Your task to perform on an android device: check storage Image 0: 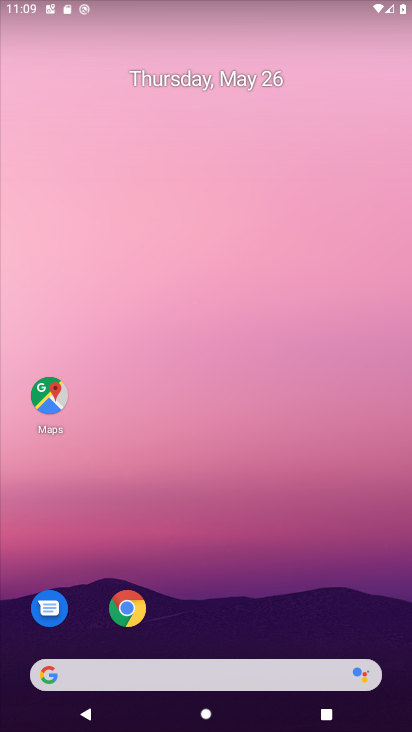
Step 0: drag from (395, 705) to (385, 301)
Your task to perform on an android device: check storage Image 1: 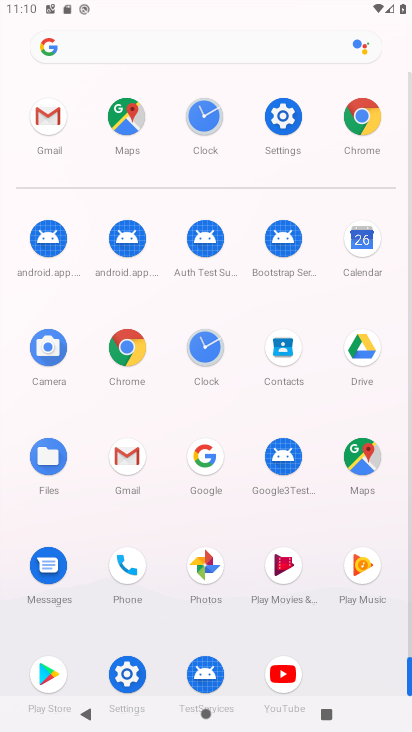
Step 1: click (125, 681)
Your task to perform on an android device: check storage Image 2: 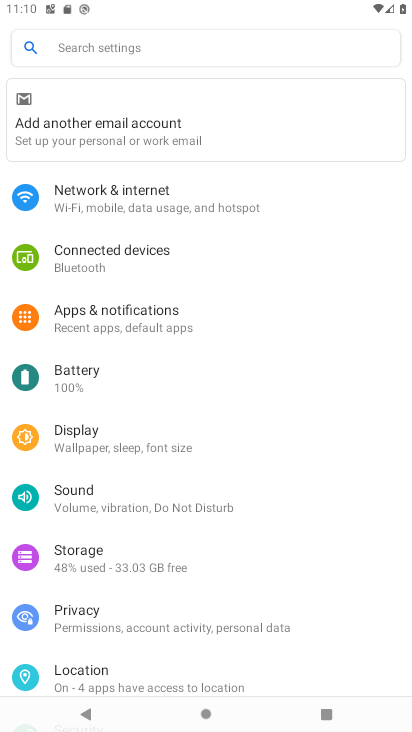
Step 2: click (96, 562)
Your task to perform on an android device: check storage Image 3: 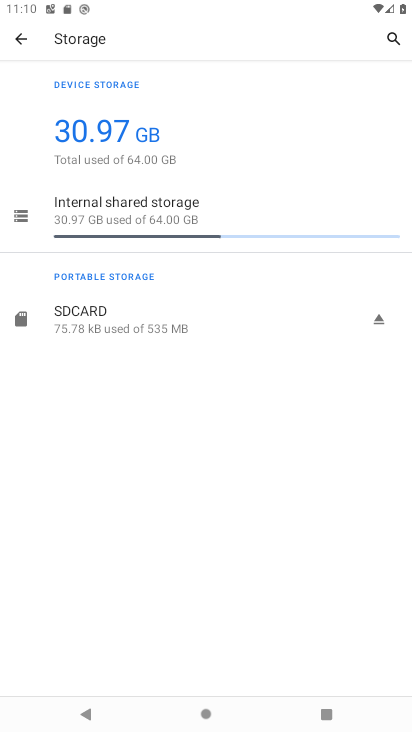
Step 3: task complete